Your task to perform on an android device: turn on showing notifications on the lock screen Image 0: 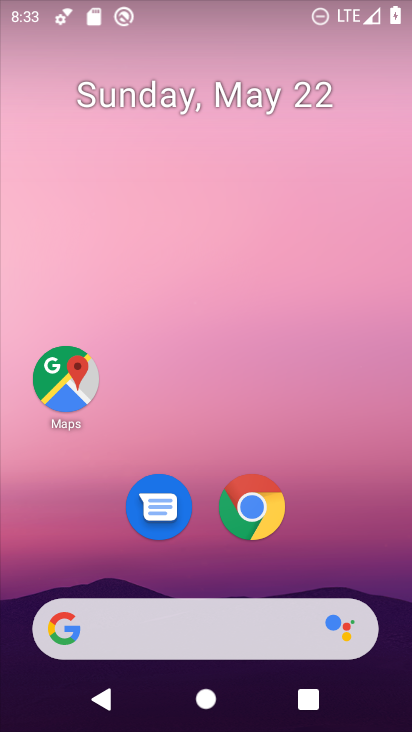
Step 0: drag from (251, 677) to (229, 8)
Your task to perform on an android device: turn on showing notifications on the lock screen Image 1: 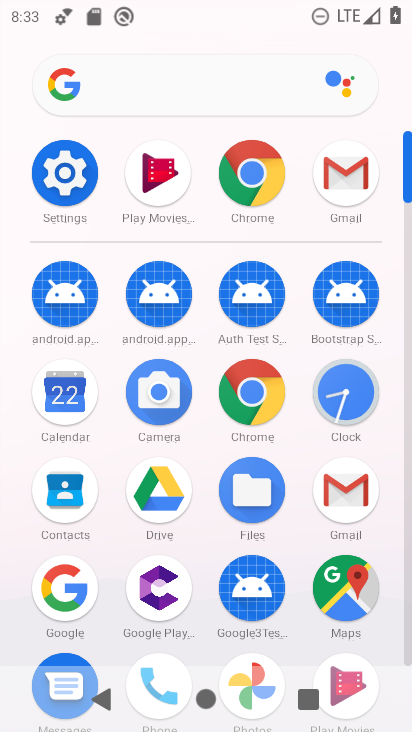
Step 1: click (76, 184)
Your task to perform on an android device: turn on showing notifications on the lock screen Image 2: 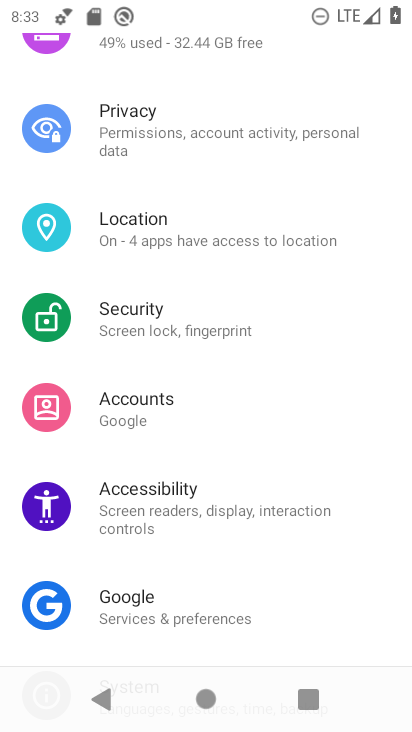
Step 2: drag from (305, 135) to (276, 625)
Your task to perform on an android device: turn on showing notifications on the lock screen Image 3: 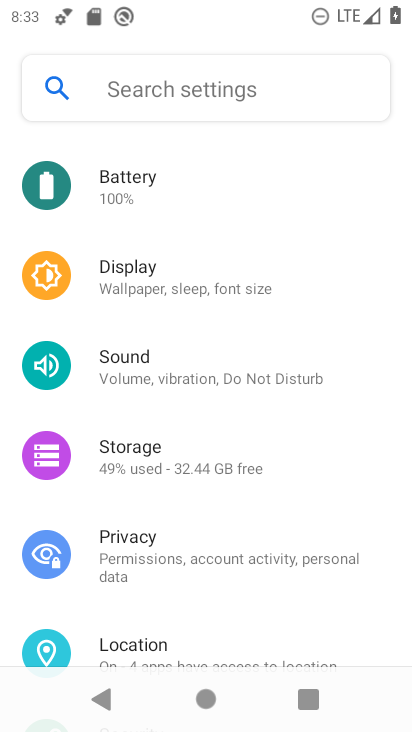
Step 3: drag from (280, 213) to (154, 720)
Your task to perform on an android device: turn on showing notifications on the lock screen Image 4: 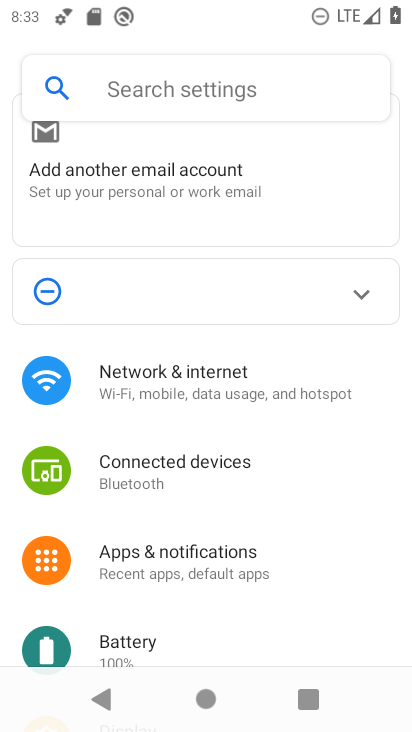
Step 4: click (194, 574)
Your task to perform on an android device: turn on showing notifications on the lock screen Image 5: 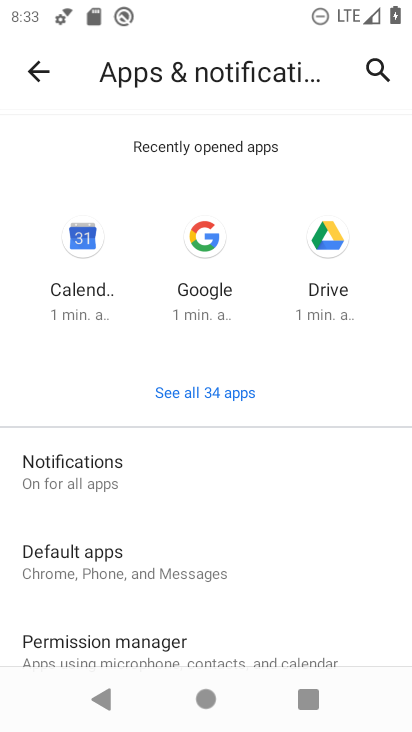
Step 5: click (91, 444)
Your task to perform on an android device: turn on showing notifications on the lock screen Image 6: 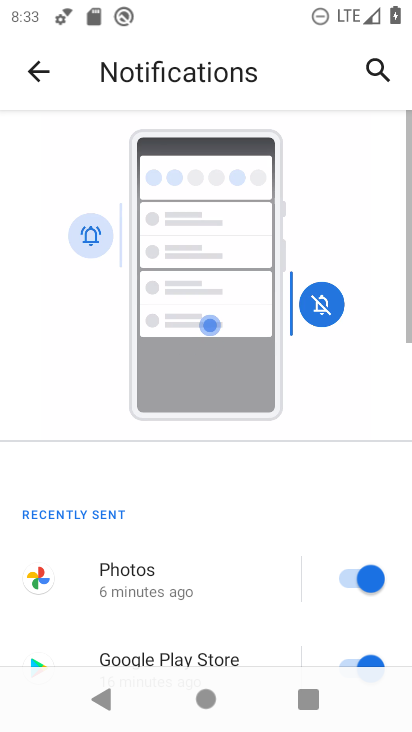
Step 6: drag from (220, 628) to (140, 28)
Your task to perform on an android device: turn on showing notifications on the lock screen Image 7: 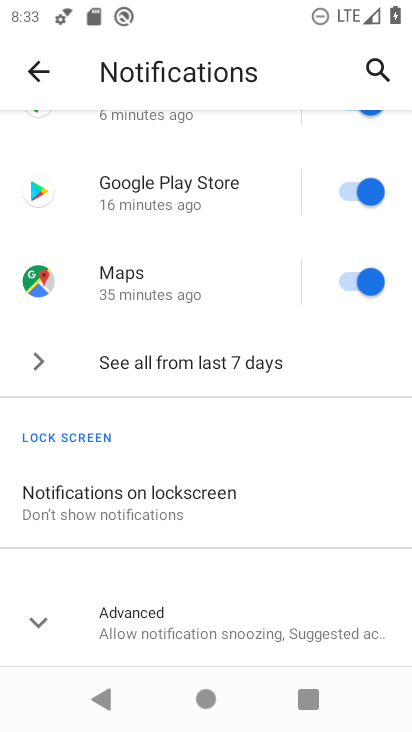
Step 7: click (165, 517)
Your task to perform on an android device: turn on showing notifications on the lock screen Image 8: 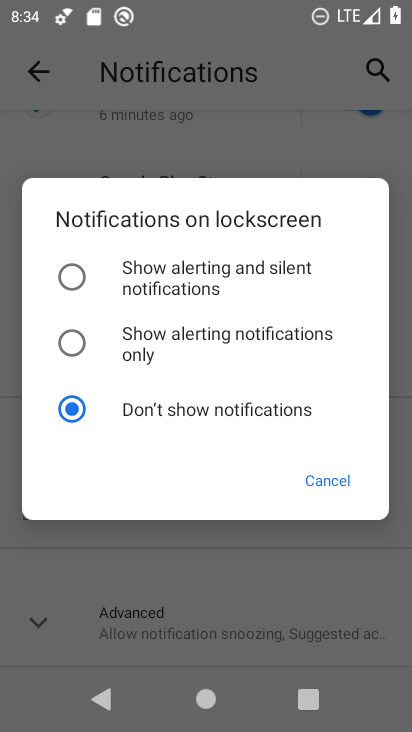
Step 8: click (209, 284)
Your task to perform on an android device: turn on showing notifications on the lock screen Image 9: 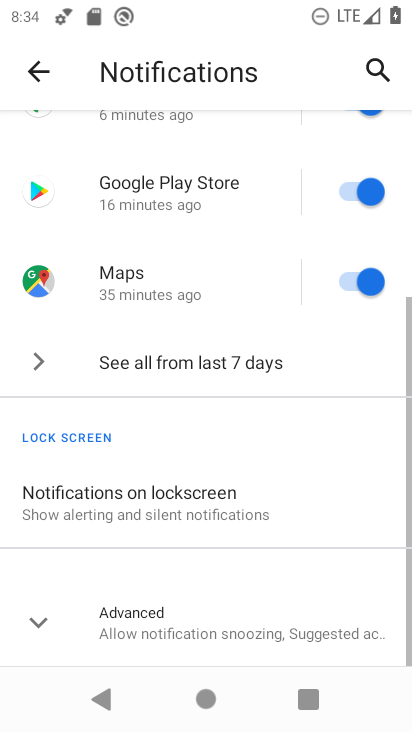
Step 9: task complete